Your task to perform on an android device: turn on sleep mode Image 0: 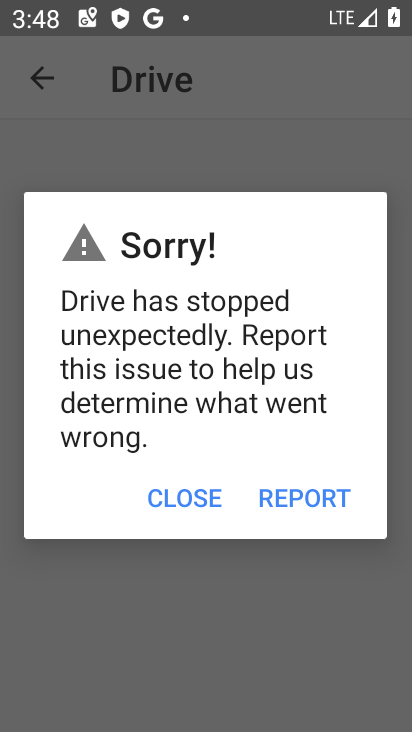
Step 0: press home button
Your task to perform on an android device: turn on sleep mode Image 1: 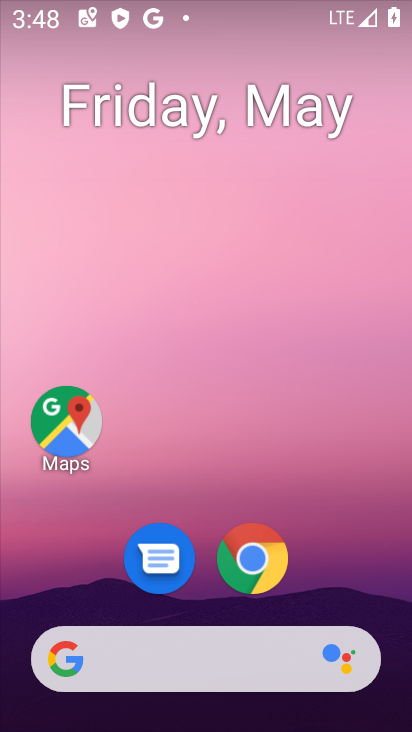
Step 1: drag from (206, 646) to (353, 100)
Your task to perform on an android device: turn on sleep mode Image 2: 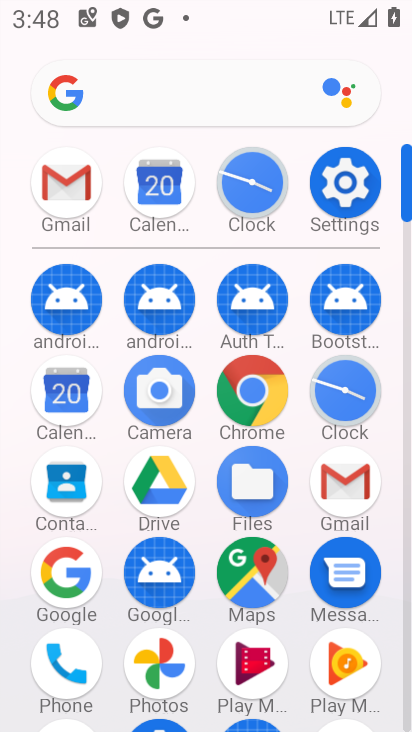
Step 2: click (344, 182)
Your task to perform on an android device: turn on sleep mode Image 3: 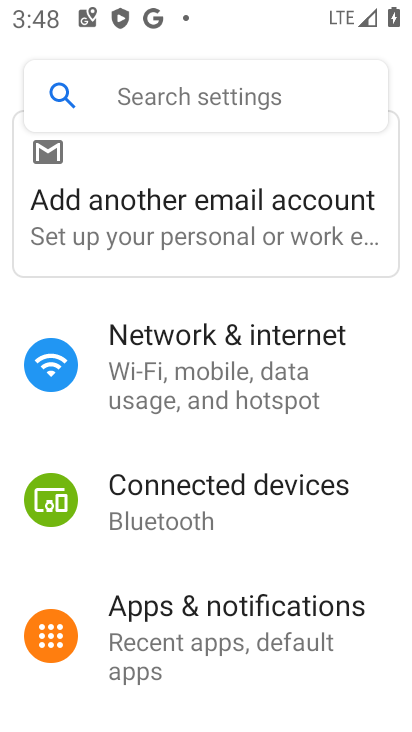
Step 3: drag from (288, 457) to (341, 125)
Your task to perform on an android device: turn on sleep mode Image 4: 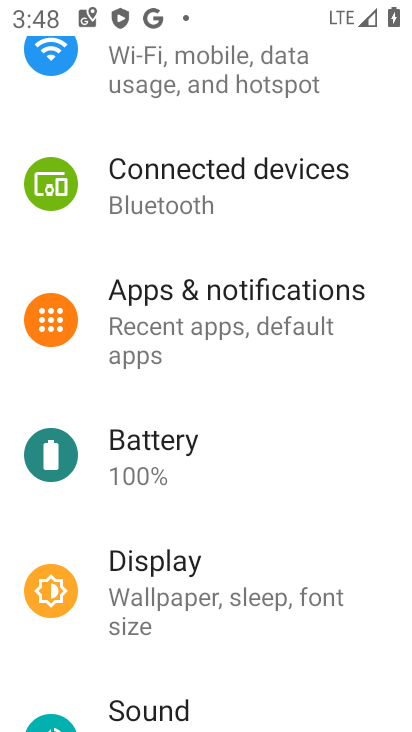
Step 4: click (172, 583)
Your task to perform on an android device: turn on sleep mode Image 5: 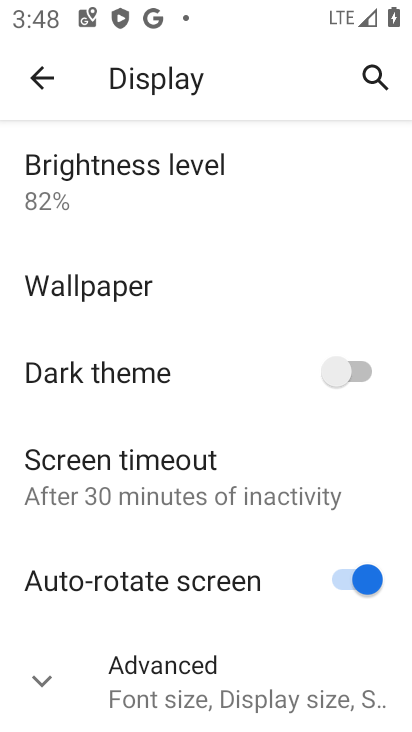
Step 5: task complete